Your task to perform on an android device: Search for seafood restaurants on Google Maps Image 0: 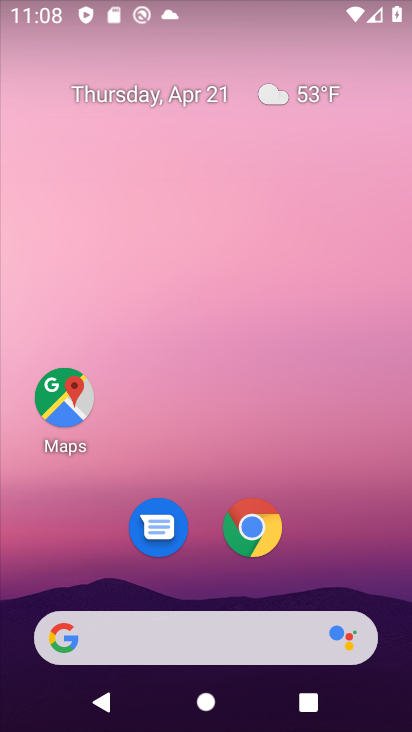
Step 0: drag from (345, 551) to (347, 220)
Your task to perform on an android device: Search for seafood restaurants on Google Maps Image 1: 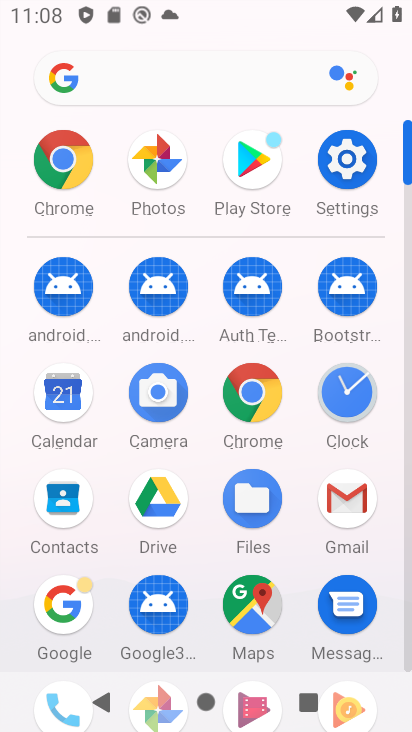
Step 1: drag from (388, 560) to (390, 335)
Your task to perform on an android device: Search for seafood restaurants on Google Maps Image 2: 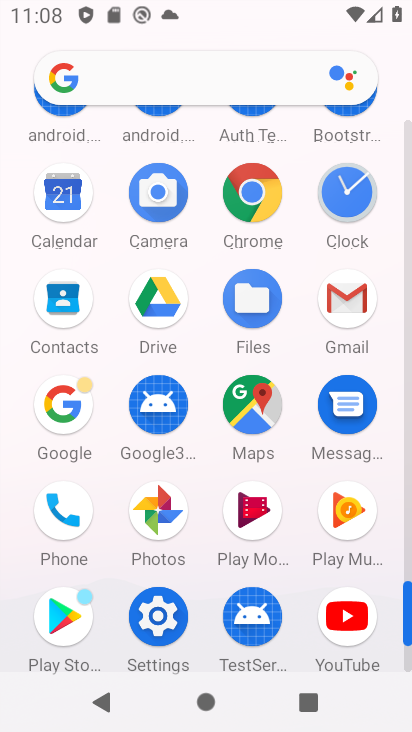
Step 2: click (273, 397)
Your task to perform on an android device: Search for seafood restaurants on Google Maps Image 3: 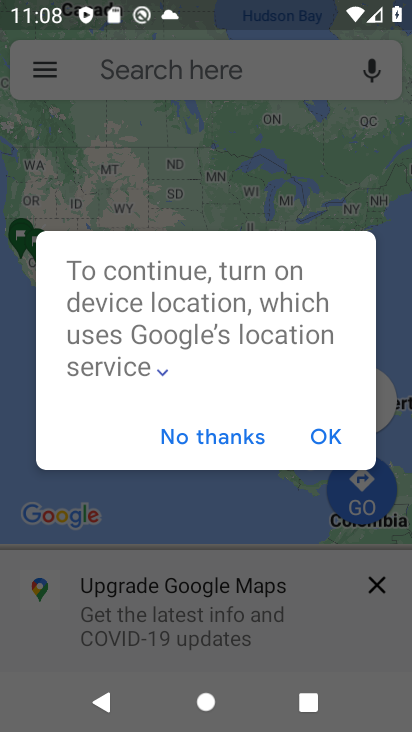
Step 3: click (243, 429)
Your task to perform on an android device: Search for seafood restaurants on Google Maps Image 4: 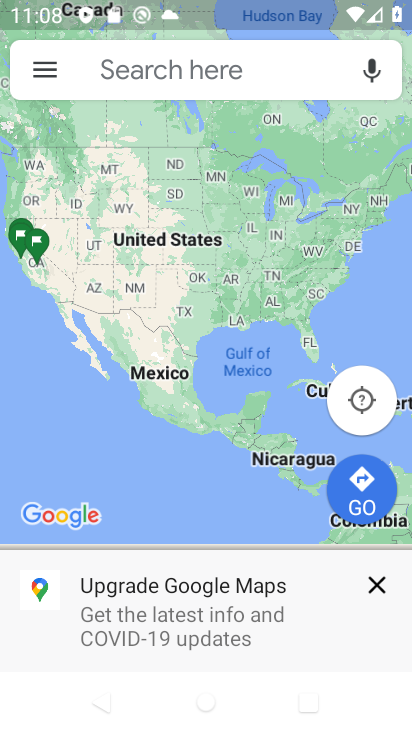
Step 4: click (266, 70)
Your task to perform on an android device: Search for seafood restaurants on Google Maps Image 5: 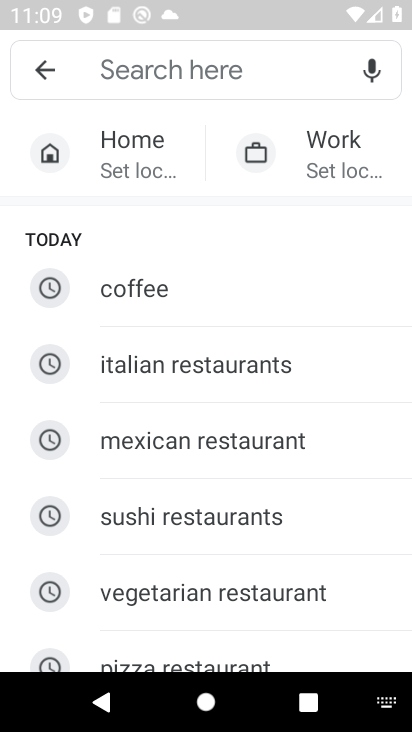
Step 5: type "seafood restaurants"
Your task to perform on an android device: Search for seafood restaurants on Google Maps Image 6: 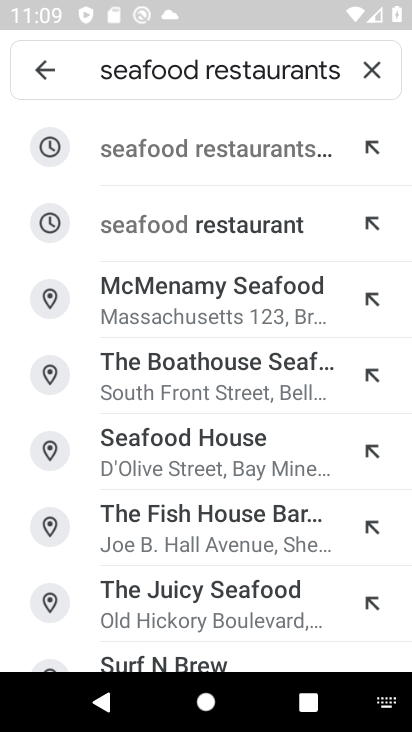
Step 6: click (202, 154)
Your task to perform on an android device: Search for seafood restaurants on Google Maps Image 7: 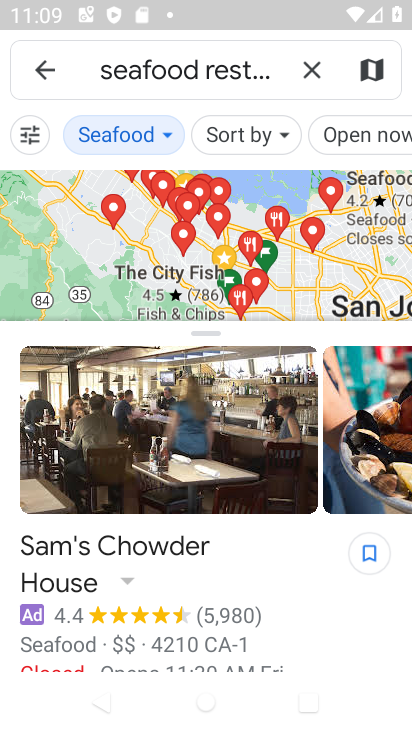
Step 7: task complete